Your task to perform on an android device: turn off translation in the chrome app Image 0: 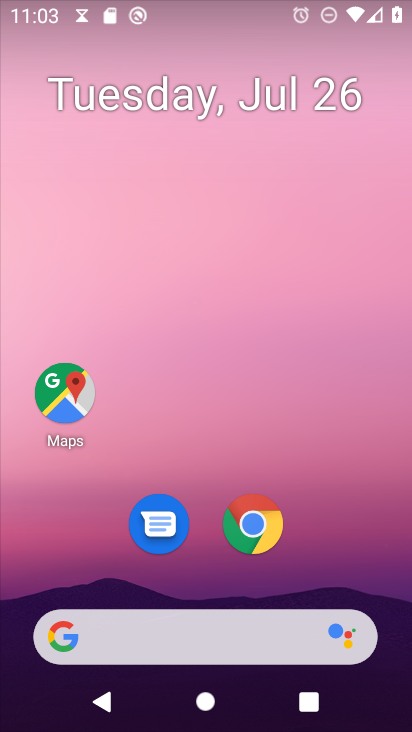
Step 0: press home button
Your task to perform on an android device: turn off translation in the chrome app Image 1: 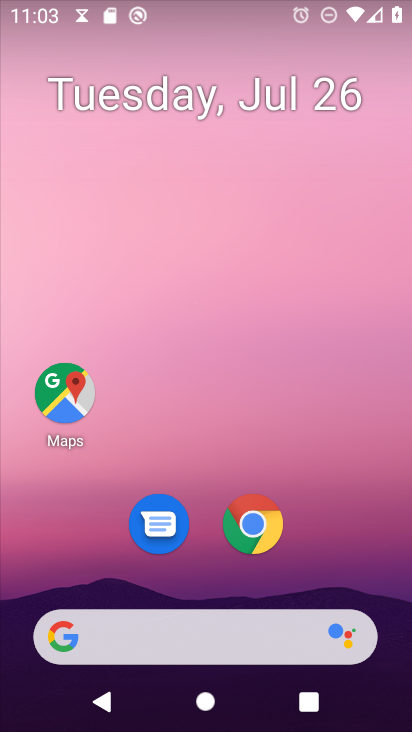
Step 1: click (243, 529)
Your task to perform on an android device: turn off translation in the chrome app Image 2: 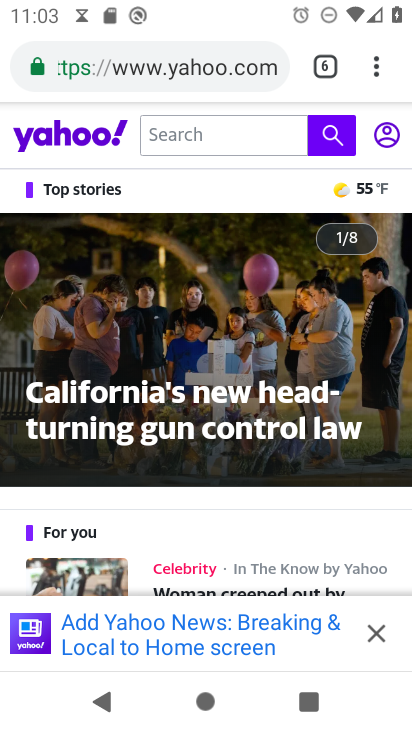
Step 2: drag from (373, 66) to (197, 523)
Your task to perform on an android device: turn off translation in the chrome app Image 3: 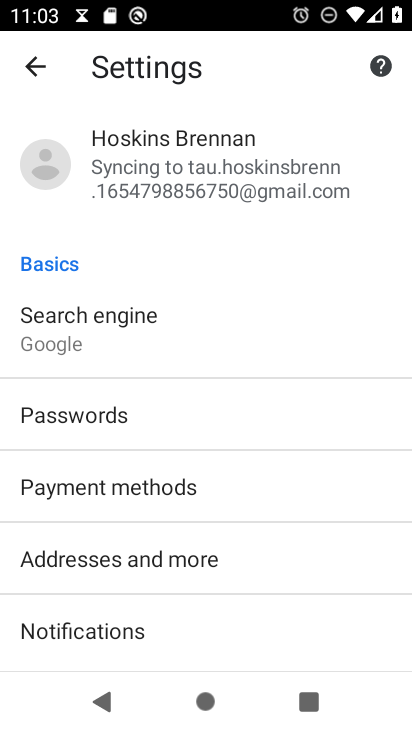
Step 3: drag from (151, 613) to (273, 161)
Your task to perform on an android device: turn off translation in the chrome app Image 4: 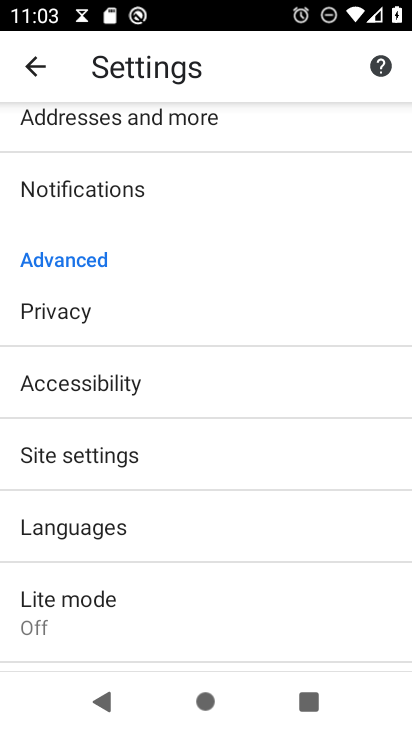
Step 4: click (109, 520)
Your task to perform on an android device: turn off translation in the chrome app Image 5: 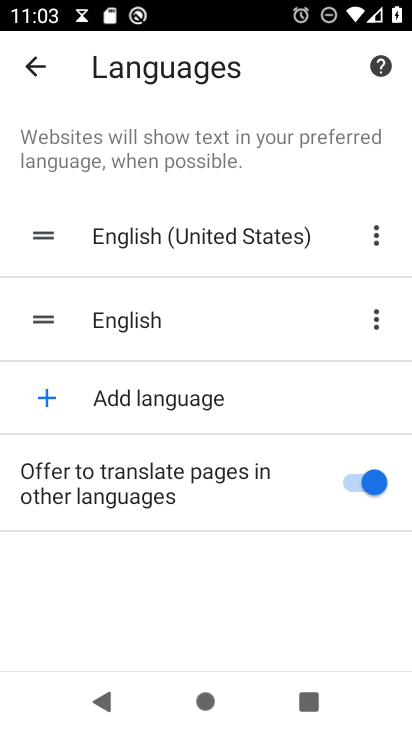
Step 5: click (346, 480)
Your task to perform on an android device: turn off translation in the chrome app Image 6: 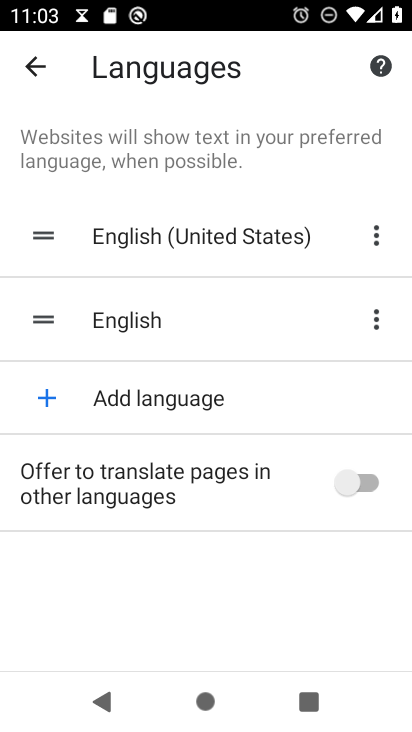
Step 6: task complete